Your task to perform on an android device: turn on showing notifications on the lock screen Image 0: 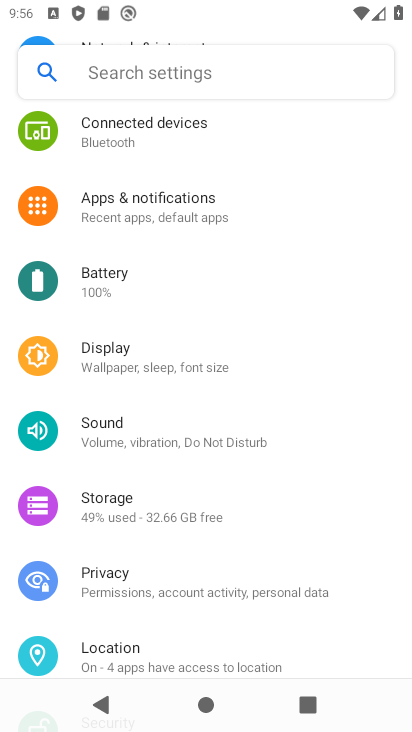
Step 0: click (176, 203)
Your task to perform on an android device: turn on showing notifications on the lock screen Image 1: 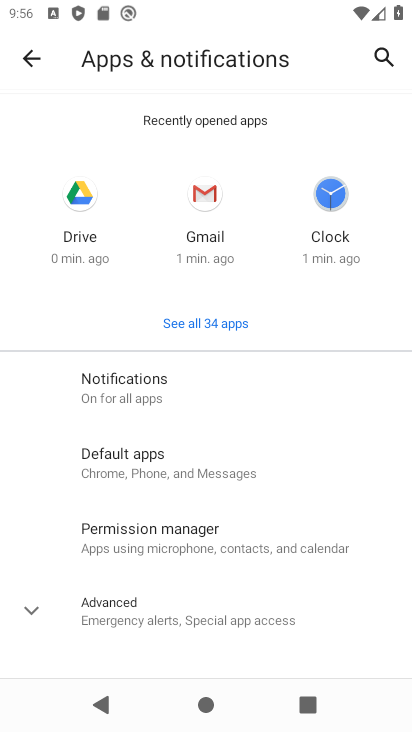
Step 1: click (165, 399)
Your task to perform on an android device: turn on showing notifications on the lock screen Image 2: 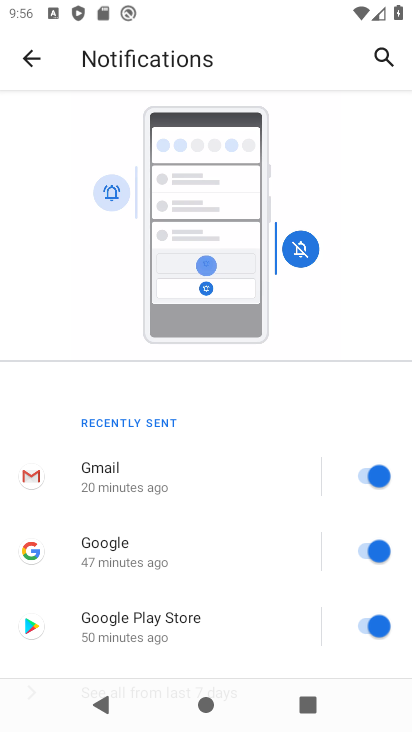
Step 2: drag from (167, 643) to (249, 143)
Your task to perform on an android device: turn on showing notifications on the lock screen Image 3: 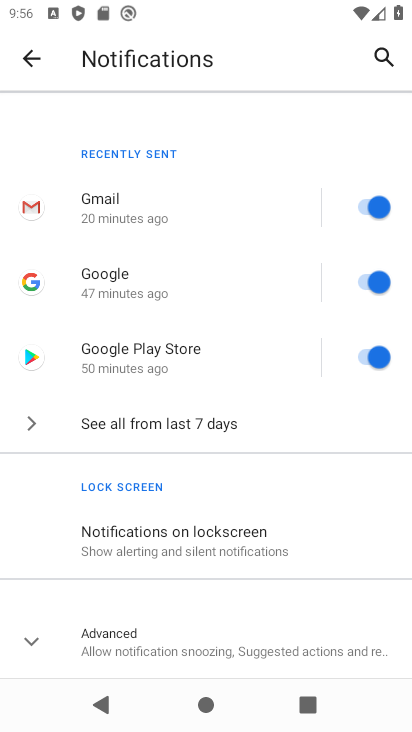
Step 3: click (256, 549)
Your task to perform on an android device: turn on showing notifications on the lock screen Image 4: 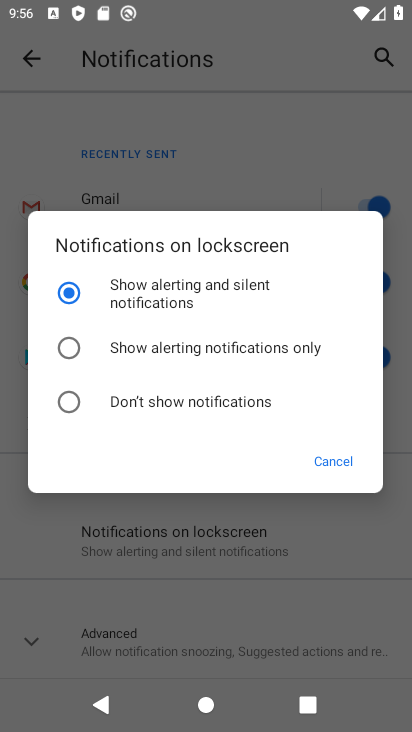
Step 4: task complete